Your task to perform on an android device: choose inbox layout in the gmail app Image 0: 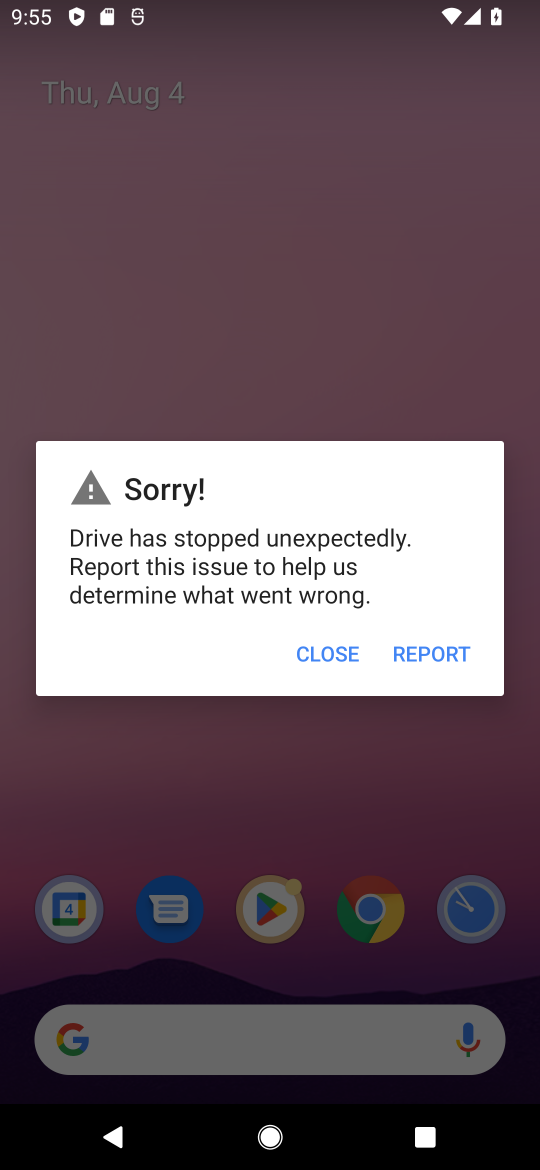
Step 0: press home button
Your task to perform on an android device: choose inbox layout in the gmail app Image 1: 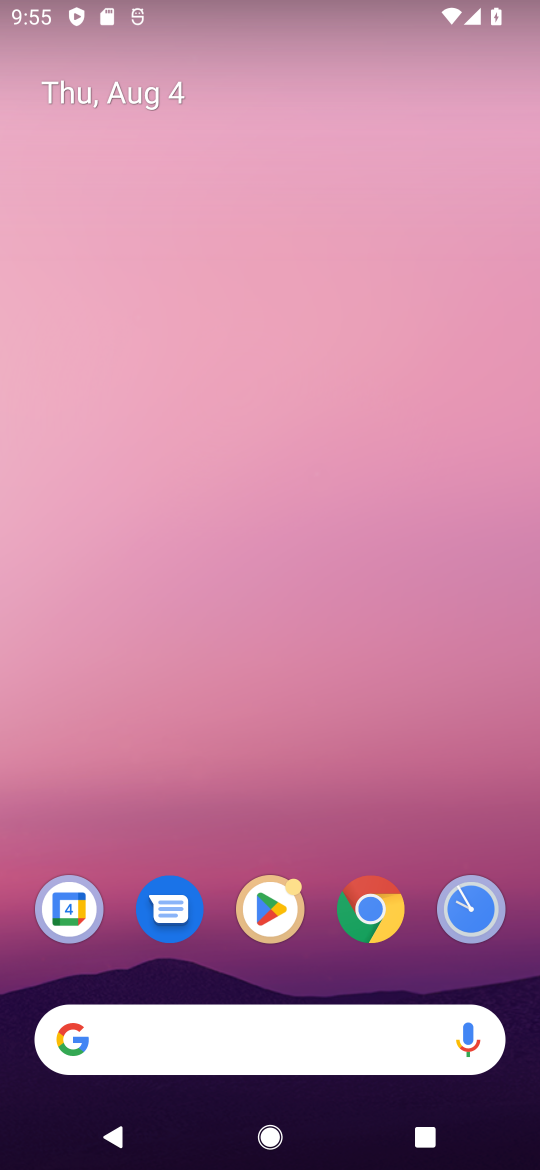
Step 1: drag from (236, 843) to (226, 20)
Your task to perform on an android device: choose inbox layout in the gmail app Image 2: 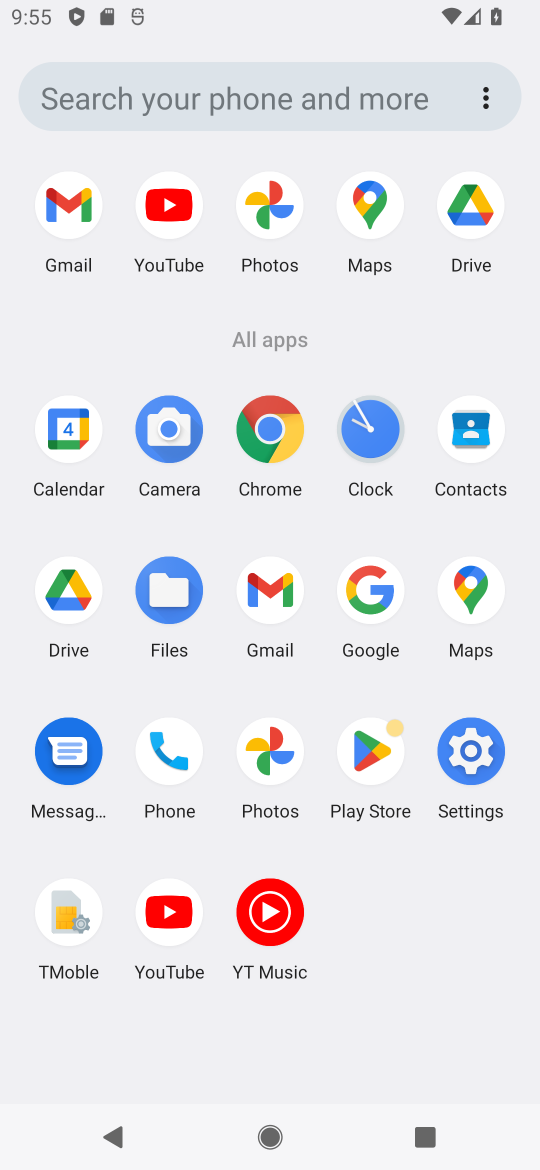
Step 2: click (255, 594)
Your task to perform on an android device: choose inbox layout in the gmail app Image 3: 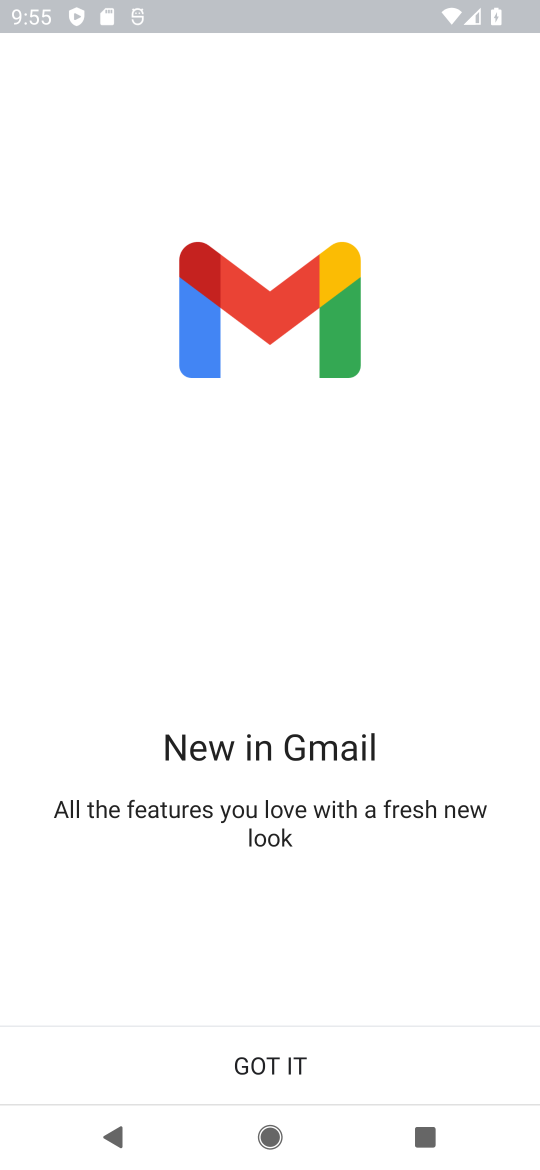
Step 3: click (254, 1059)
Your task to perform on an android device: choose inbox layout in the gmail app Image 4: 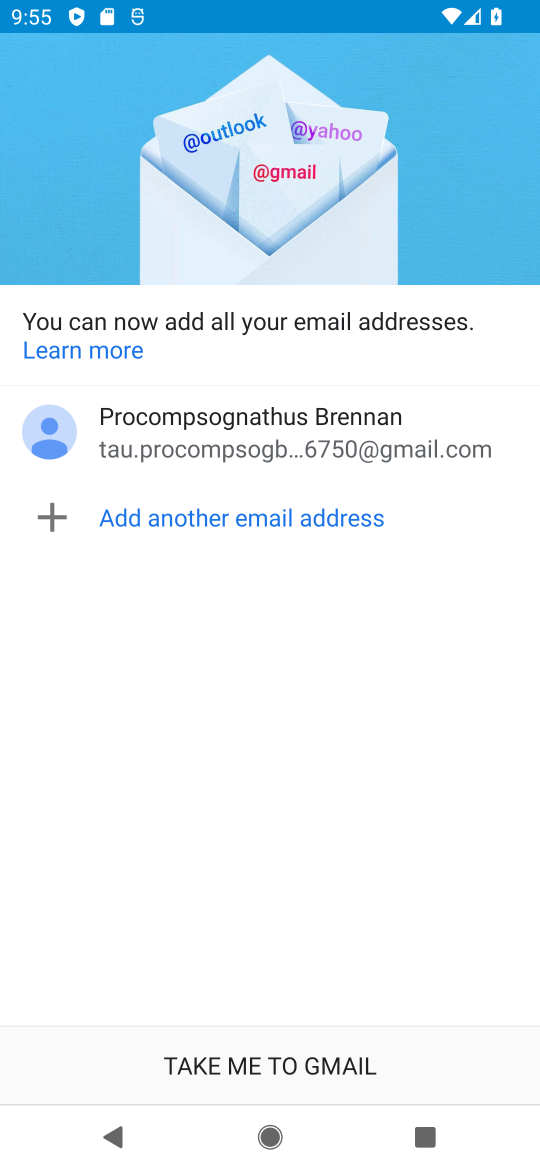
Step 4: click (301, 1083)
Your task to perform on an android device: choose inbox layout in the gmail app Image 5: 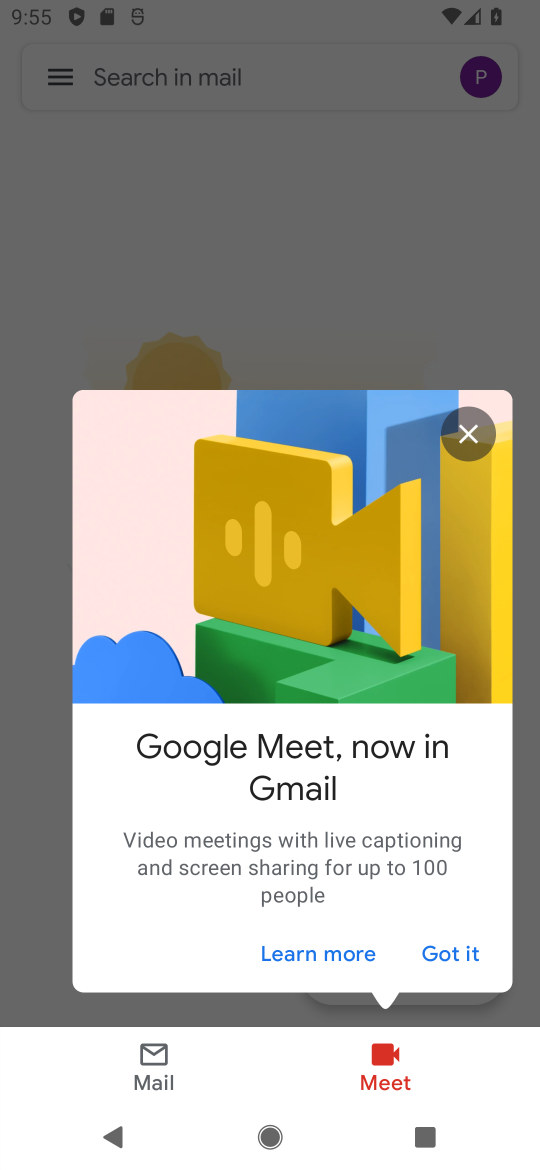
Step 5: click (485, 436)
Your task to perform on an android device: choose inbox layout in the gmail app Image 6: 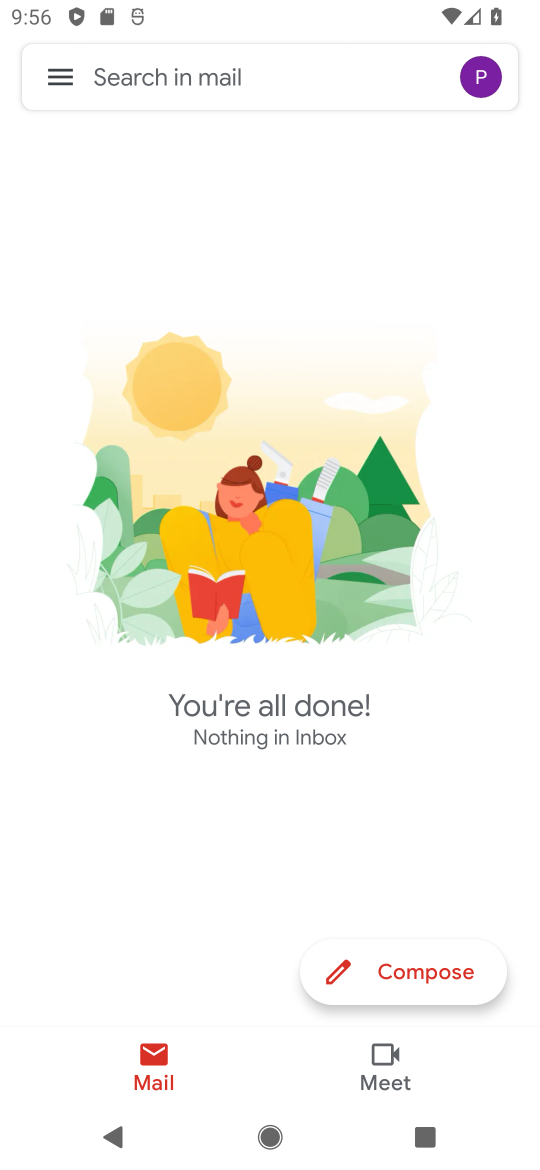
Step 6: click (55, 73)
Your task to perform on an android device: choose inbox layout in the gmail app Image 7: 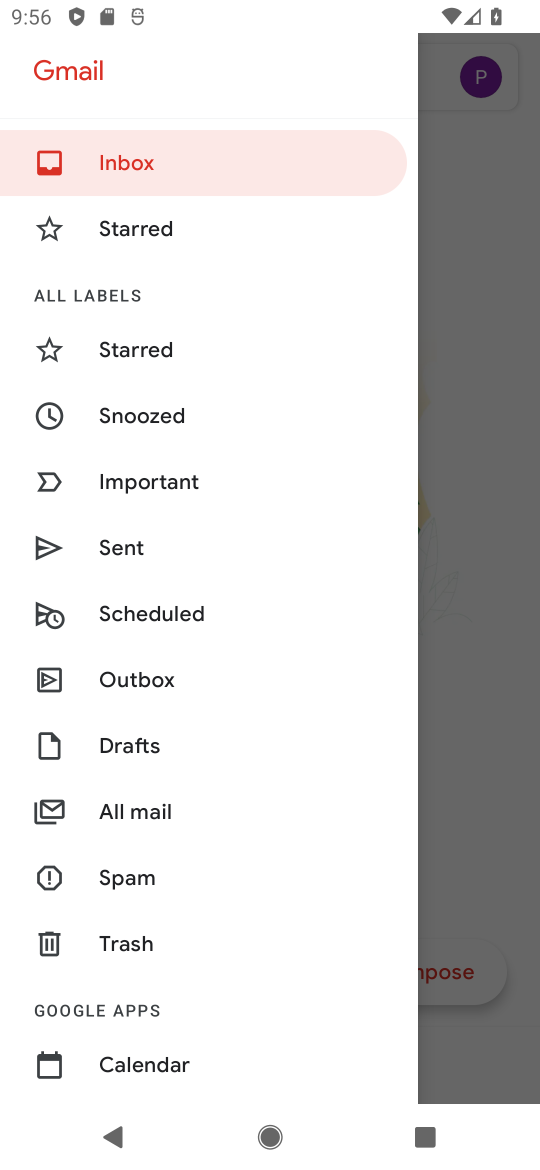
Step 7: drag from (201, 892) to (211, 323)
Your task to perform on an android device: choose inbox layout in the gmail app Image 8: 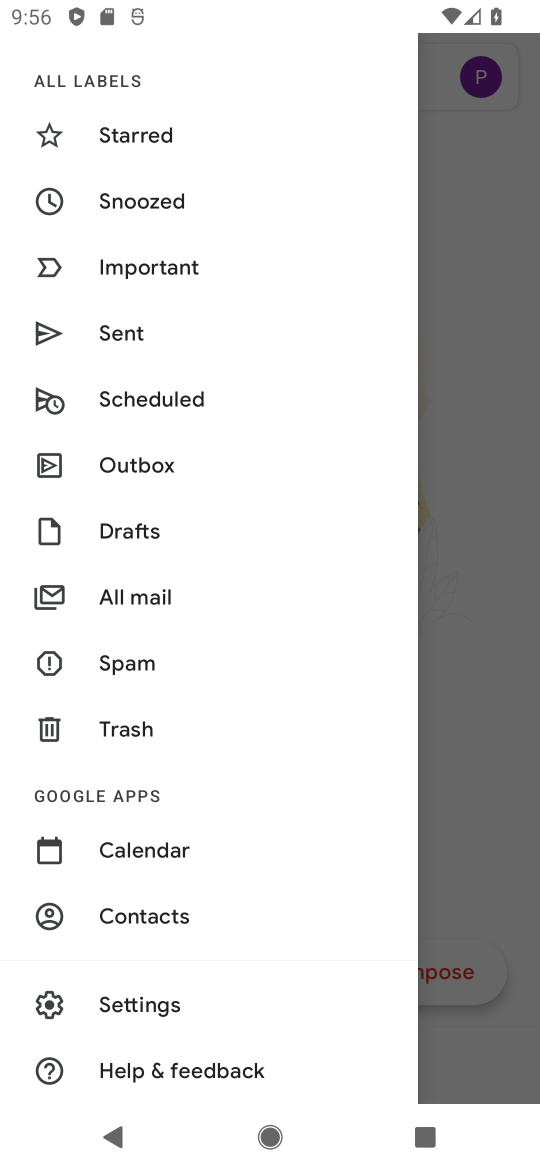
Step 8: click (170, 997)
Your task to perform on an android device: choose inbox layout in the gmail app Image 9: 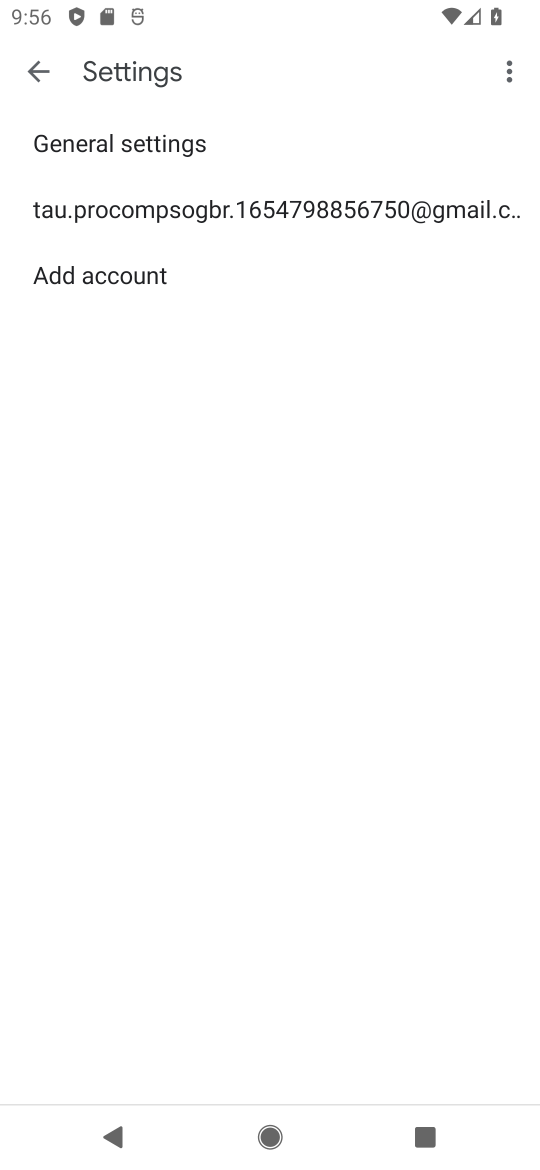
Step 9: click (123, 225)
Your task to perform on an android device: choose inbox layout in the gmail app Image 10: 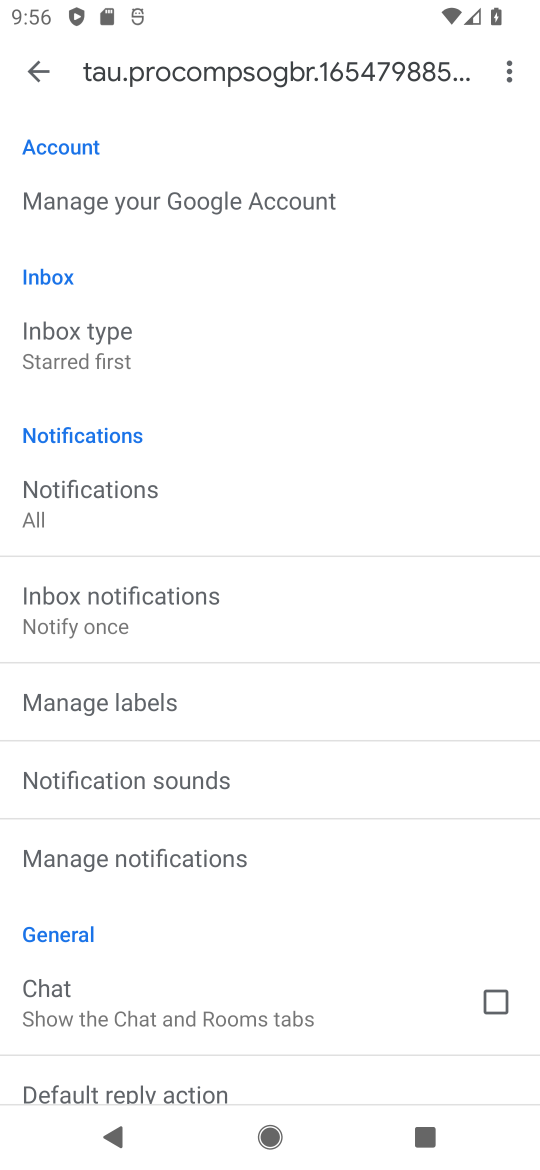
Step 10: click (86, 359)
Your task to perform on an android device: choose inbox layout in the gmail app Image 11: 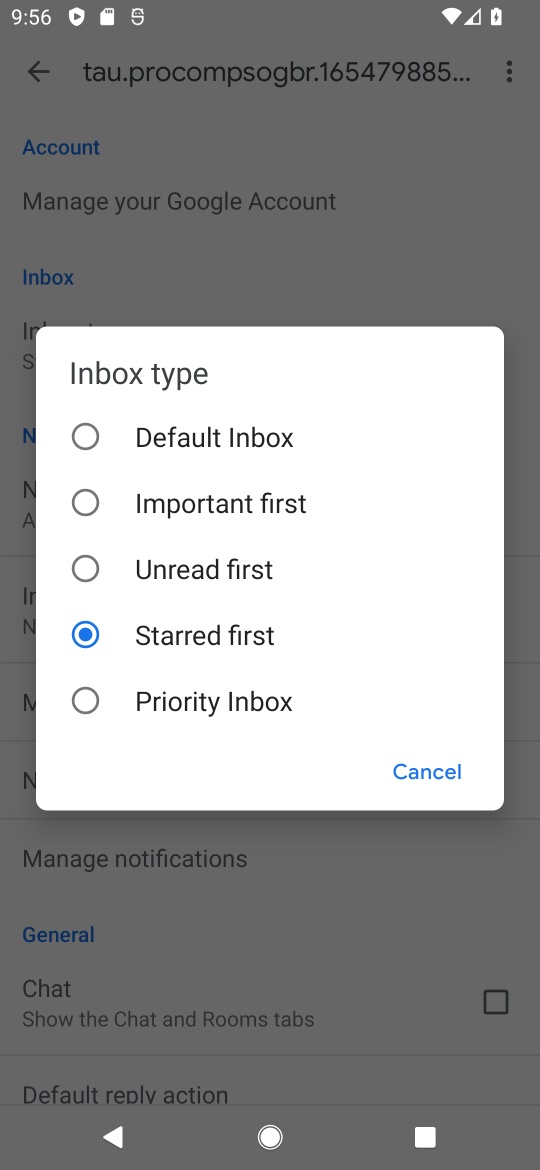
Step 11: click (90, 570)
Your task to perform on an android device: choose inbox layout in the gmail app Image 12: 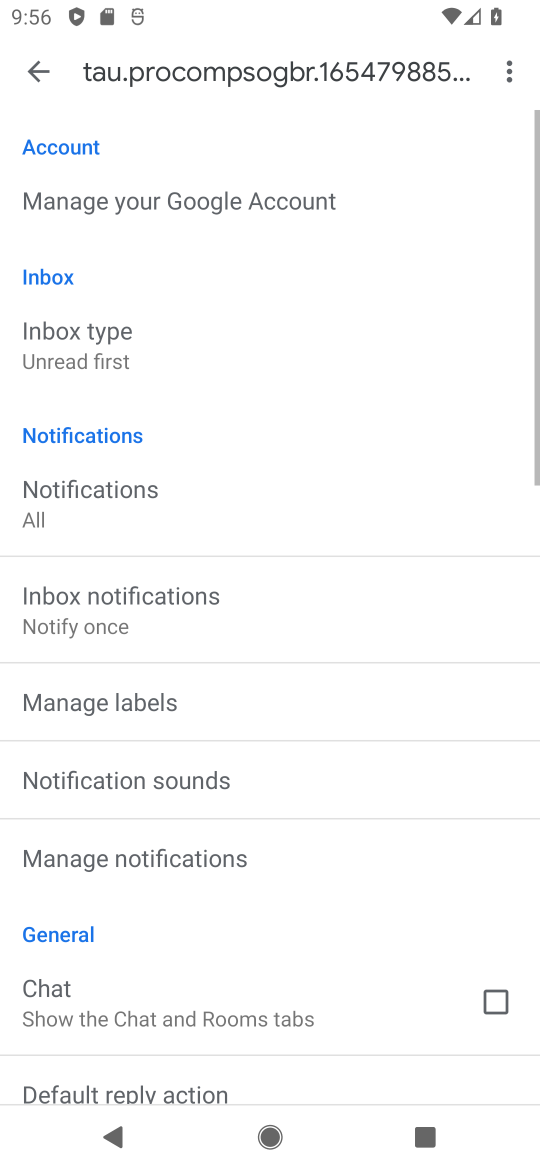
Step 12: task complete